Your task to perform on an android device: open wifi settings Image 0: 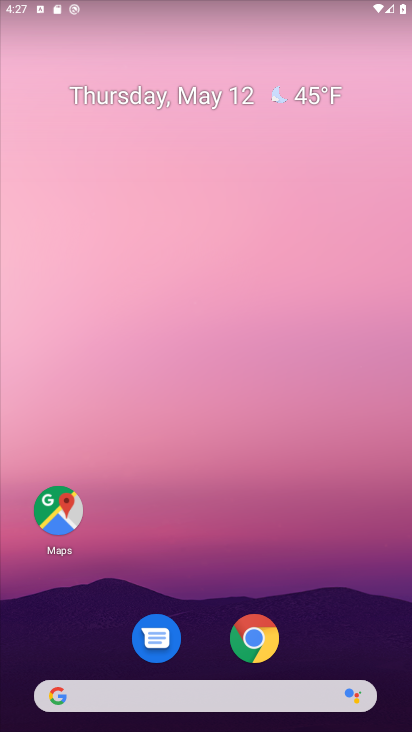
Step 0: drag from (322, 538) to (227, 113)
Your task to perform on an android device: open wifi settings Image 1: 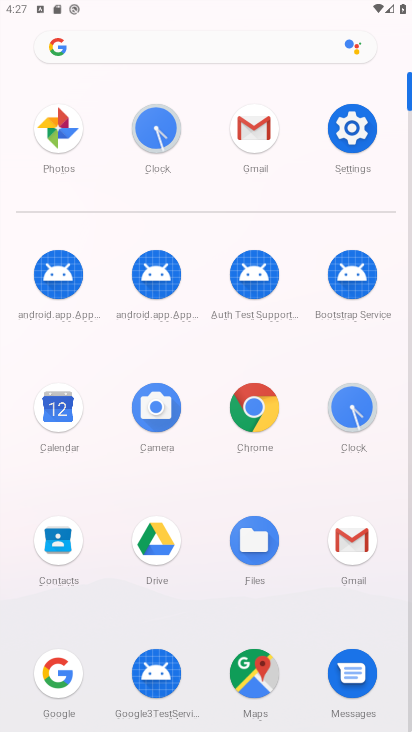
Step 1: click (362, 130)
Your task to perform on an android device: open wifi settings Image 2: 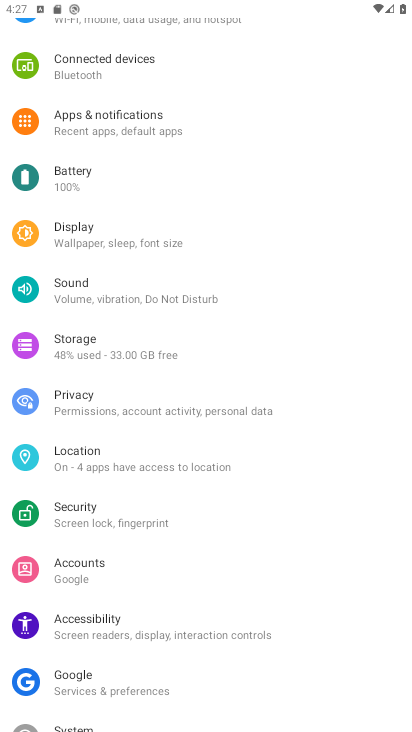
Step 2: drag from (223, 102) to (228, 512)
Your task to perform on an android device: open wifi settings Image 3: 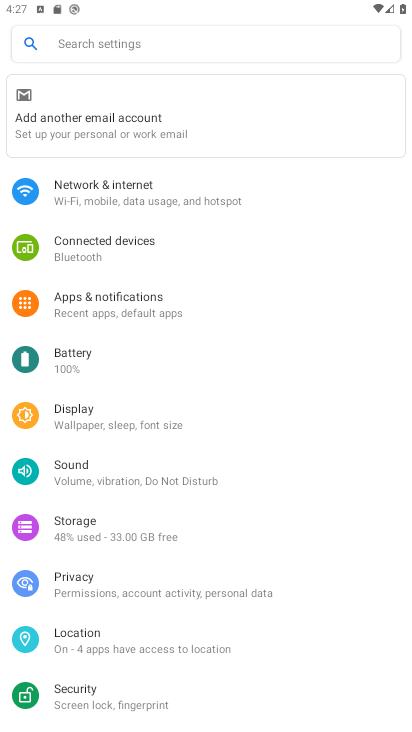
Step 3: click (176, 204)
Your task to perform on an android device: open wifi settings Image 4: 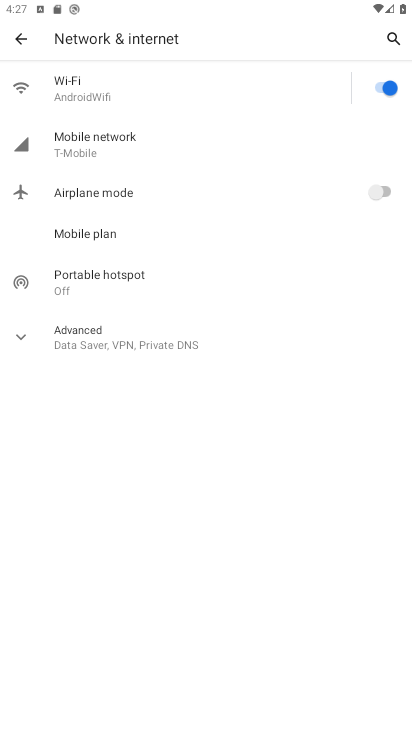
Step 4: click (152, 89)
Your task to perform on an android device: open wifi settings Image 5: 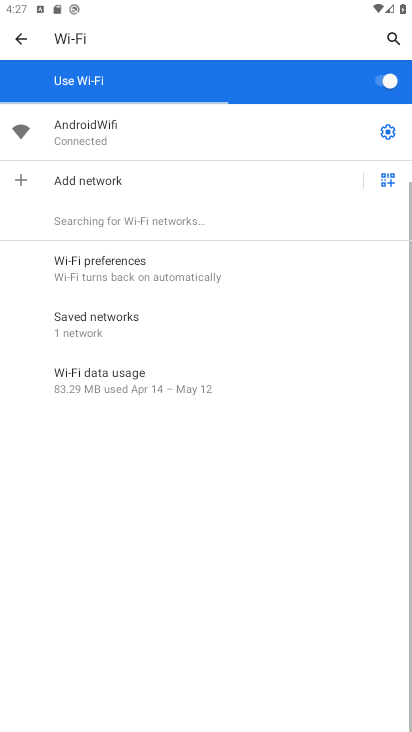
Step 5: task complete